Your task to perform on an android device: change the clock display to show seconds Image 0: 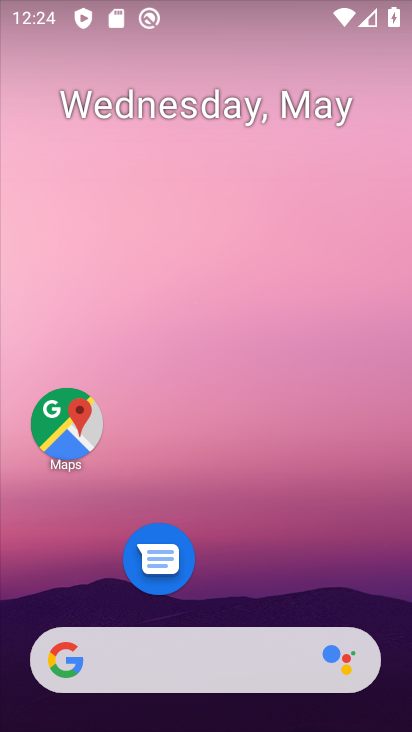
Step 0: drag from (270, 585) to (255, 94)
Your task to perform on an android device: change the clock display to show seconds Image 1: 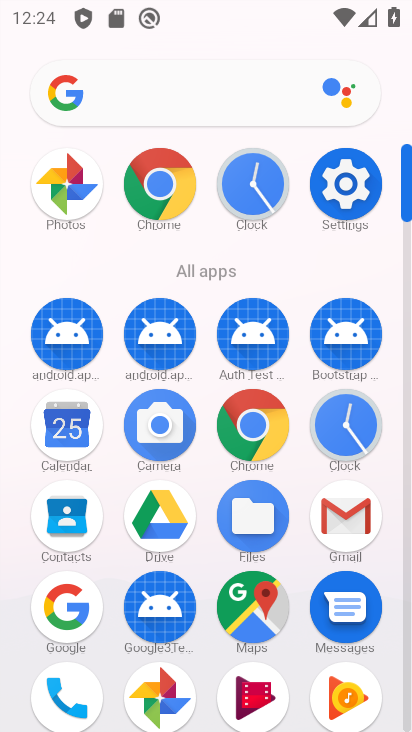
Step 1: click (371, 448)
Your task to perform on an android device: change the clock display to show seconds Image 2: 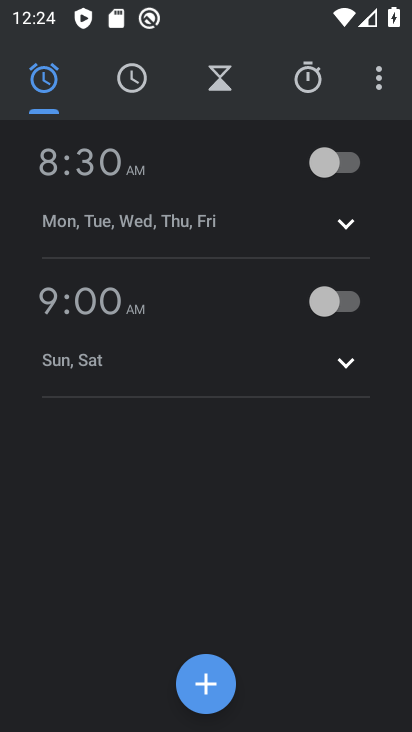
Step 2: click (378, 104)
Your task to perform on an android device: change the clock display to show seconds Image 3: 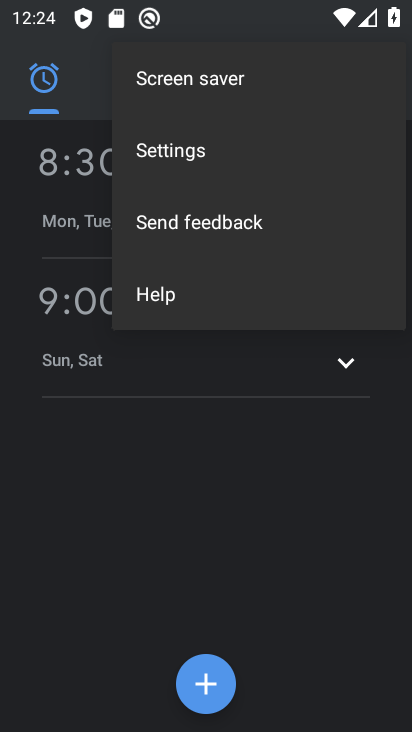
Step 3: click (195, 129)
Your task to perform on an android device: change the clock display to show seconds Image 4: 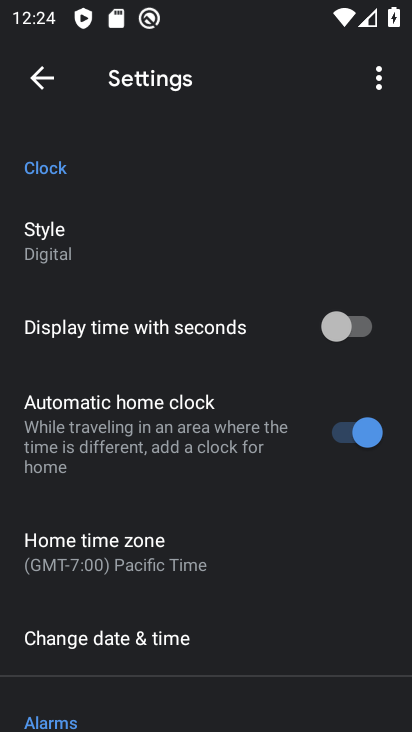
Step 4: click (328, 319)
Your task to perform on an android device: change the clock display to show seconds Image 5: 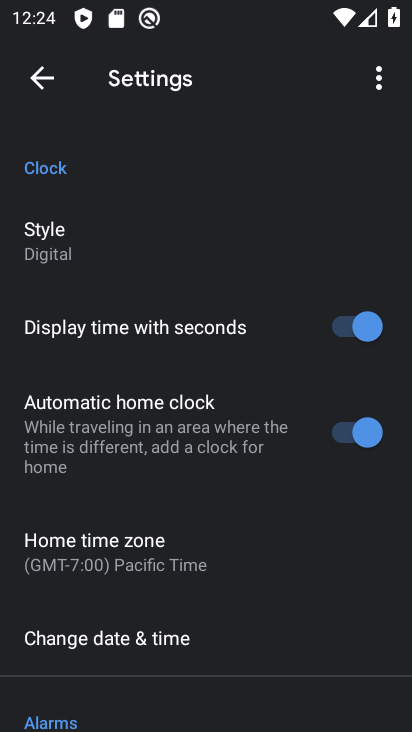
Step 5: task complete